Your task to perform on an android device: set an alarm Image 0: 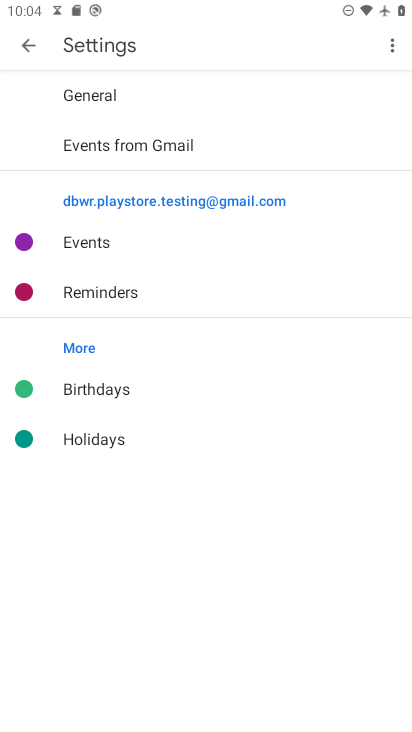
Step 0: press home button
Your task to perform on an android device: set an alarm Image 1: 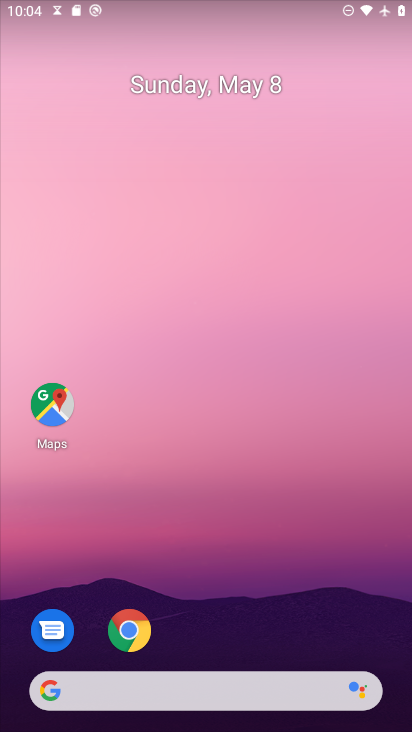
Step 1: drag from (136, 688) to (229, 220)
Your task to perform on an android device: set an alarm Image 2: 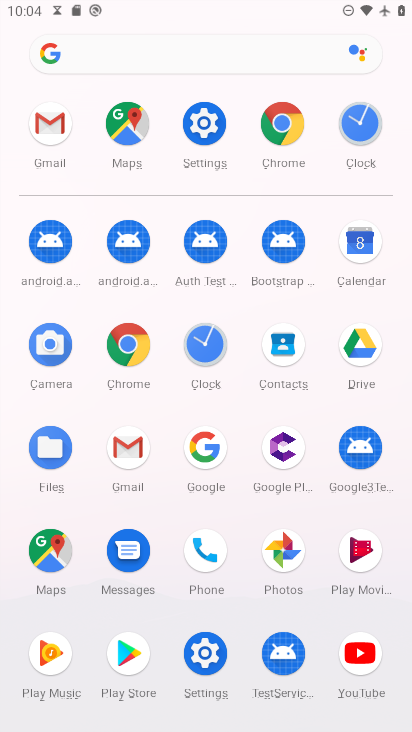
Step 2: click (357, 132)
Your task to perform on an android device: set an alarm Image 3: 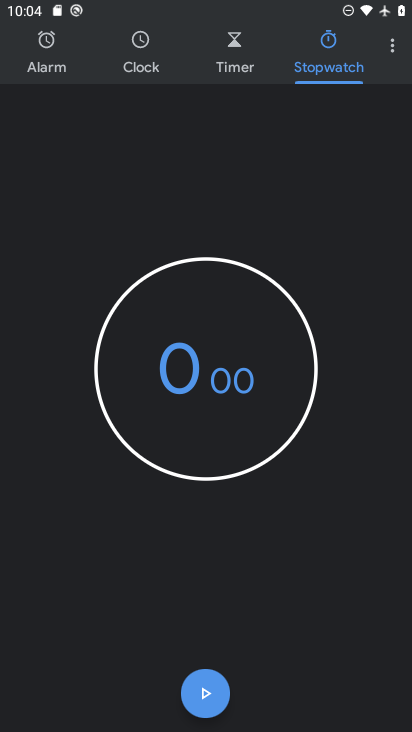
Step 3: click (41, 62)
Your task to perform on an android device: set an alarm Image 4: 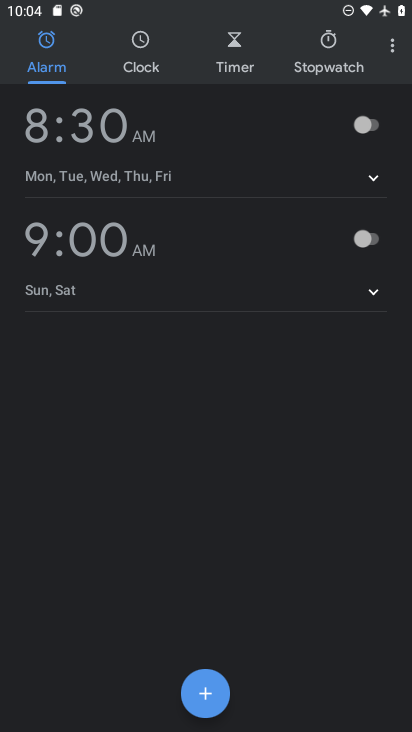
Step 4: click (94, 138)
Your task to perform on an android device: set an alarm Image 5: 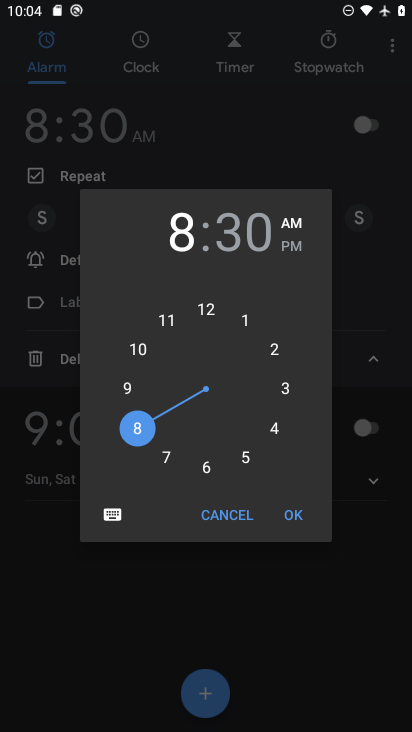
Step 5: click (270, 341)
Your task to perform on an android device: set an alarm Image 6: 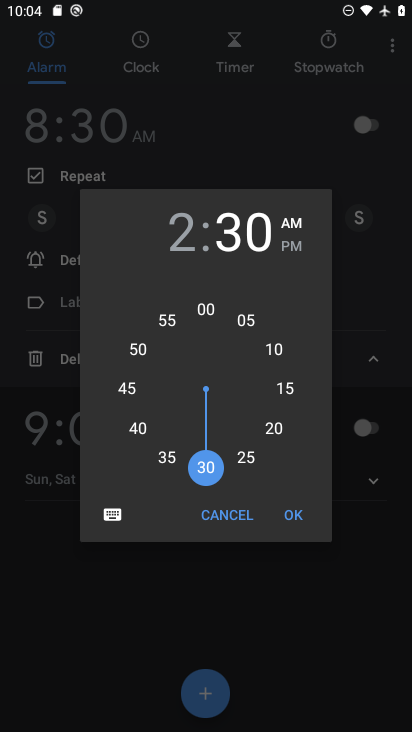
Step 6: click (288, 512)
Your task to perform on an android device: set an alarm Image 7: 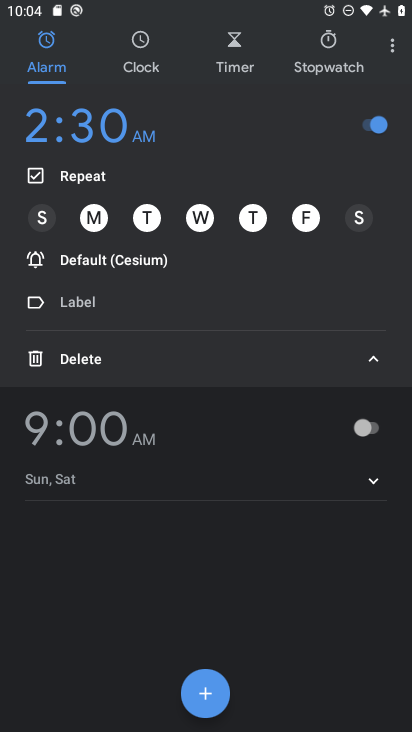
Step 7: task complete